Your task to perform on an android device: Open sound settings Image 0: 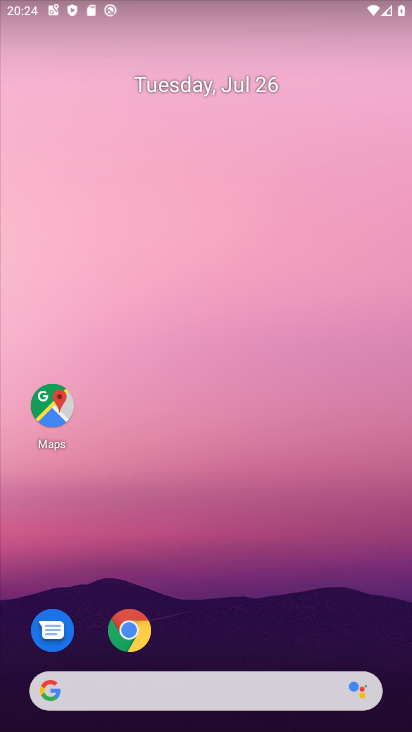
Step 0: press home button
Your task to perform on an android device: Open sound settings Image 1: 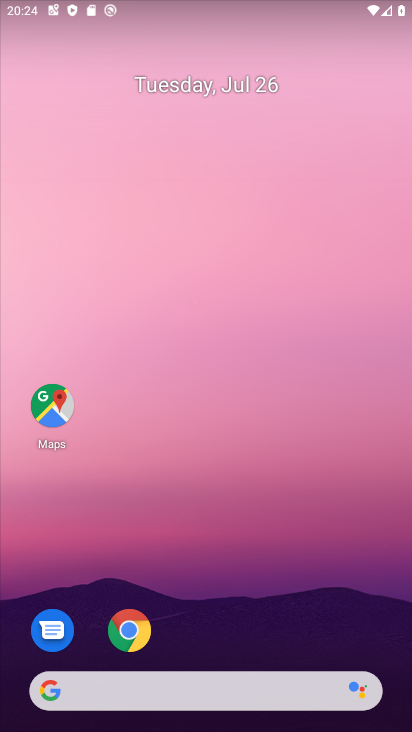
Step 1: drag from (369, 623) to (374, 143)
Your task to perform on an android device: Open sound settings Image 2: 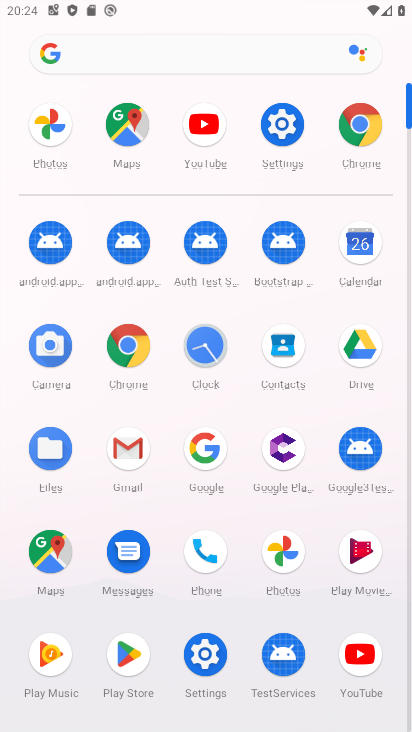
Step 2: click (287, 129)
Your task to perform on an android device: Open sound settings Image 3: 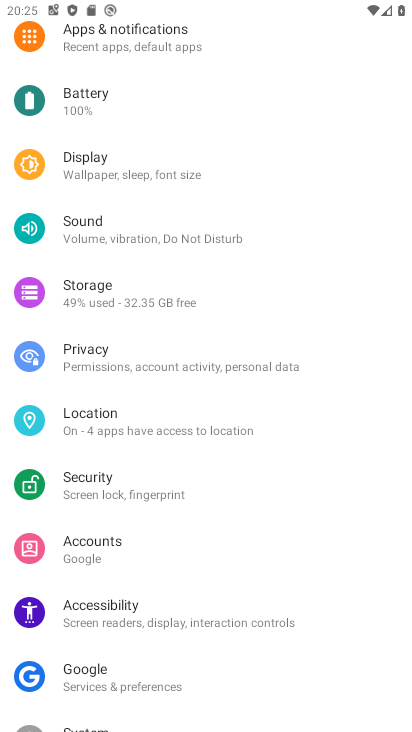
Step 3: drag from (347, 176) to (348, 231)
Your task to perform on an android device: Open sound settings Image 4: 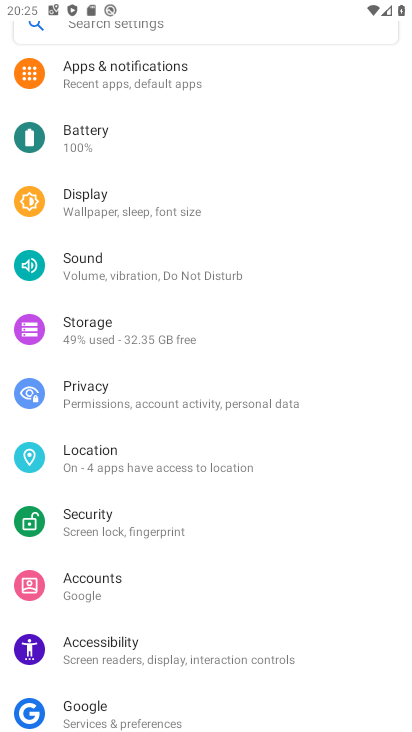
Step 4: drag from (353, 134) to (352, 220)
Your task to perform on an android device: Open sound settings Image 5: 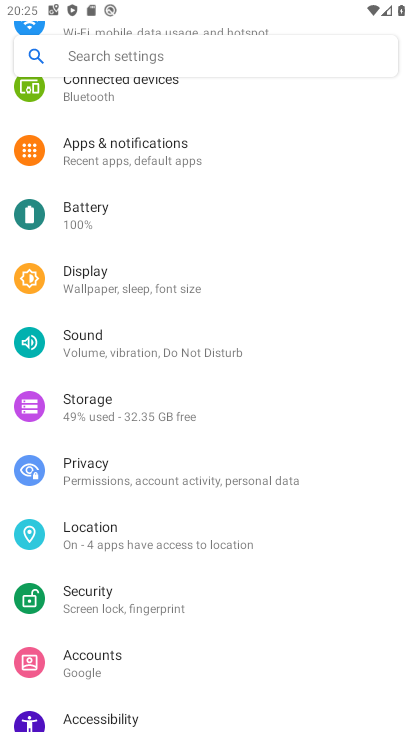
Step 5: drag from (354, 174) to (357, 253)
Your task to perform on an android device: Open sound settings Image 6: 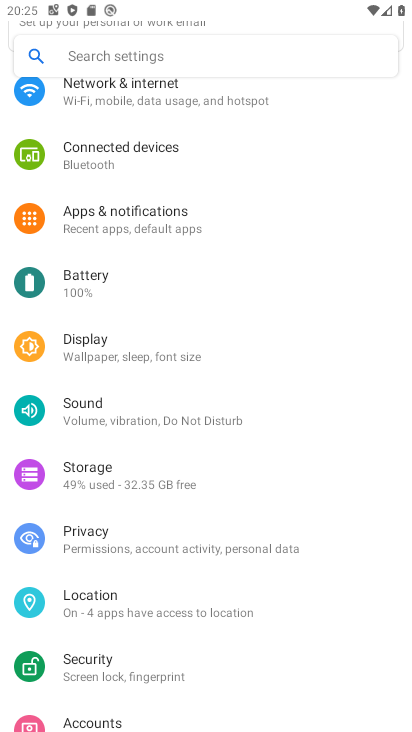
Step 6: drag from (360, 130) to (357, 457)
Your task to perform on an android device: Open sound settings Image 7: 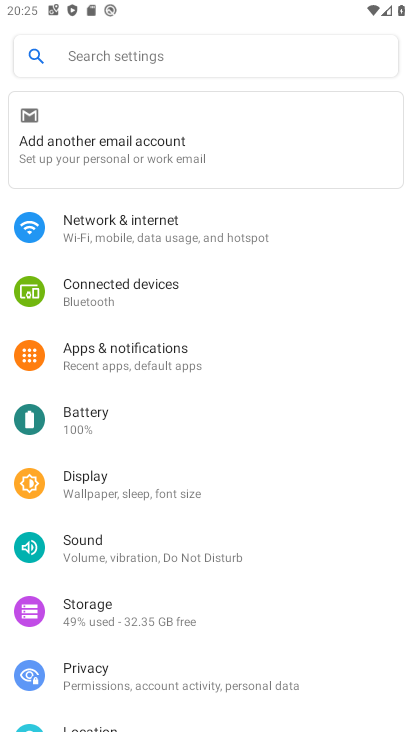
Step 7: click (296, 550)
Your task to perform on an android device: Open sound settings Image 8: 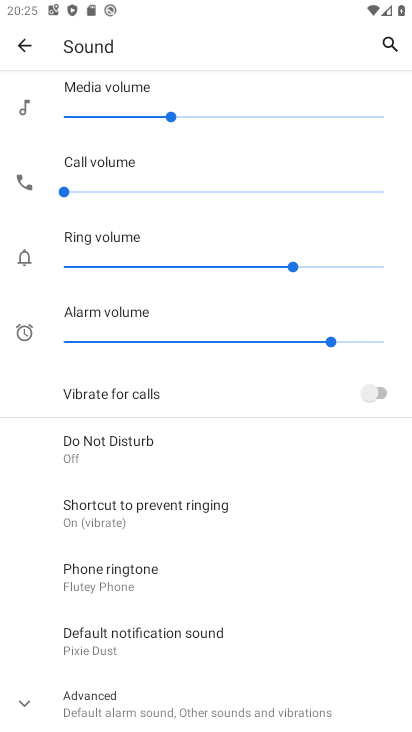
Step 8: task complete